Your task to perform on an android device: add a contact Image 0: 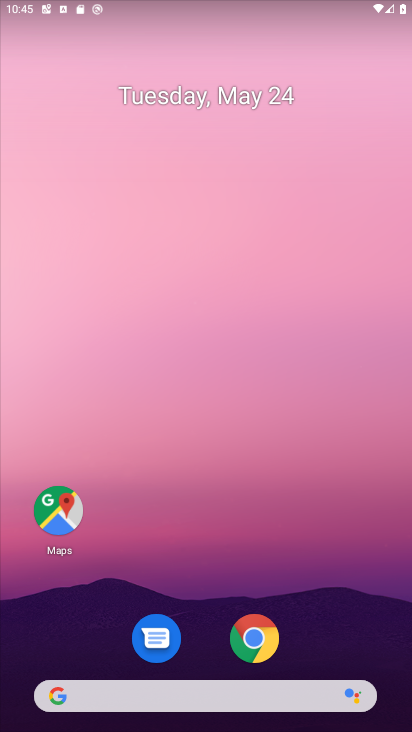
Step 0: drag from (53, 672) to (66, 148)
Your task to perform on an android device: add a contact Image 1: 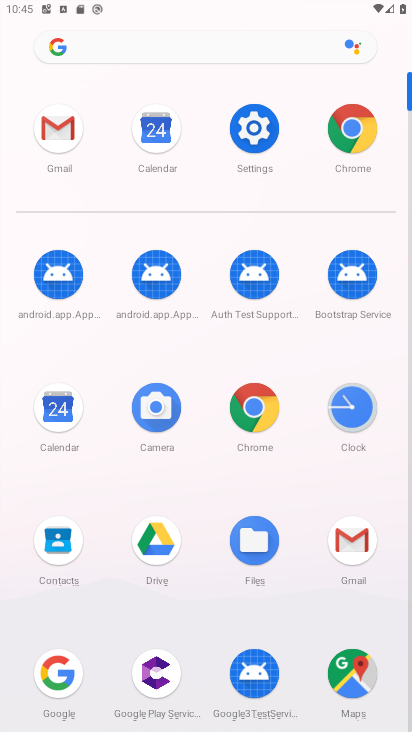
Step 1: drag from (212, 646) to (100, 276)
Your task to perform on an android device: add a contact Image 2: 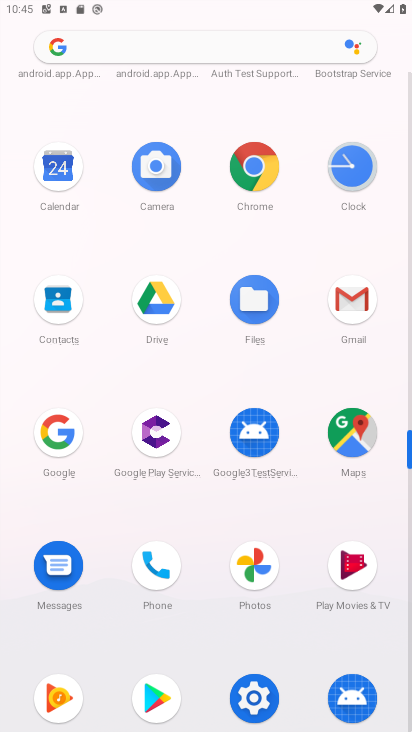
Step 2: click (54, 306)
Your task to perform on an android device: add a contact Image 3: 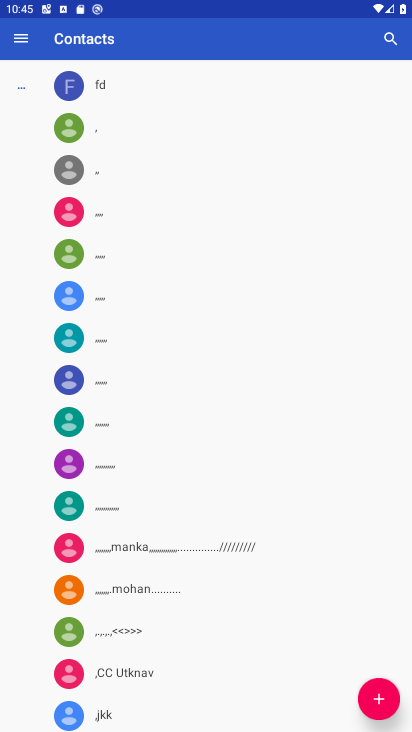
Step 3: click (376, 698)
Your task to perform on an android device: add a contact Image 4: 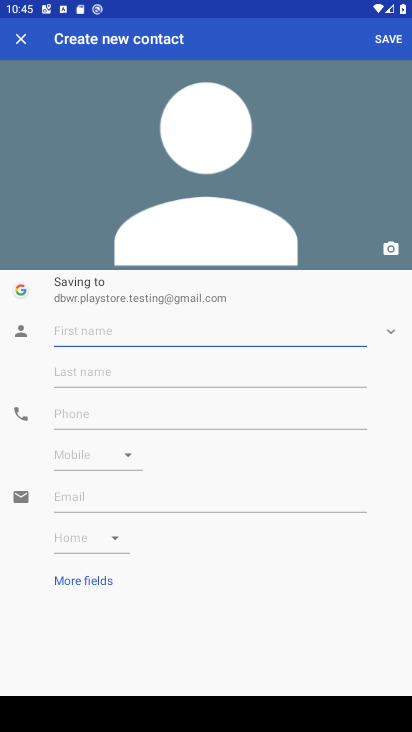
Step 4: click (96, 338)
Your task to perform on an android device: add a contact Image 5: 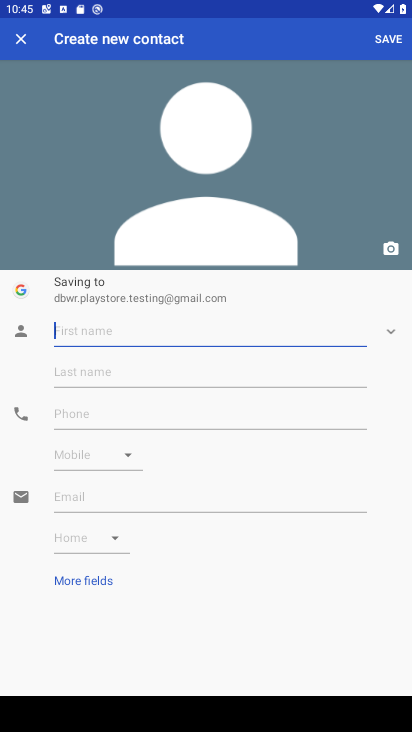
Step 5: type "hgvh"
Your task to perform on an android device: add a contact Image 6: 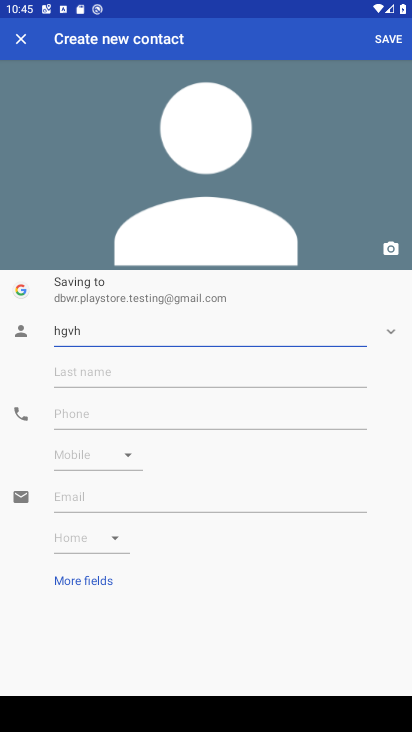
Step 6: click (303, 409)
Your task to perform on an android device: add a contact Image 7: 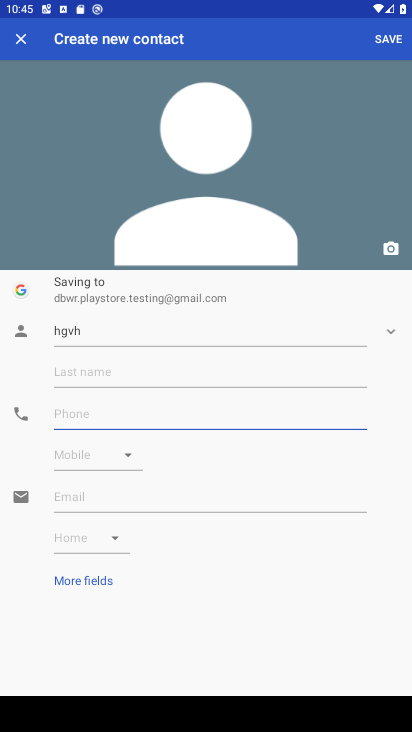
Step 7: type "899"
Your task to perform on an android device: add a contact Image 8: 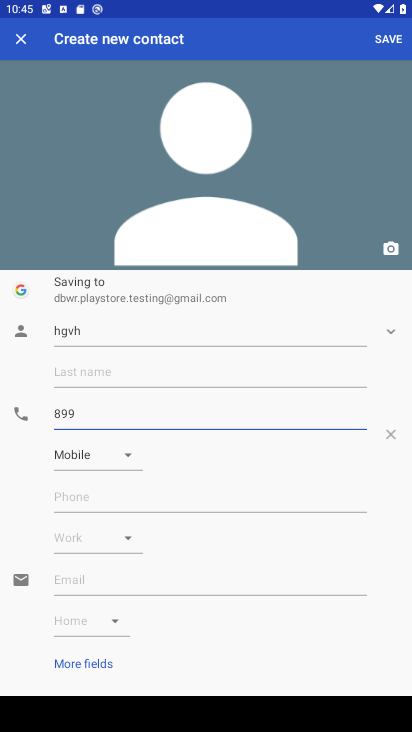
Step 8: click (382, 34)
Your task to perform on an android device: add a contact Image 9: 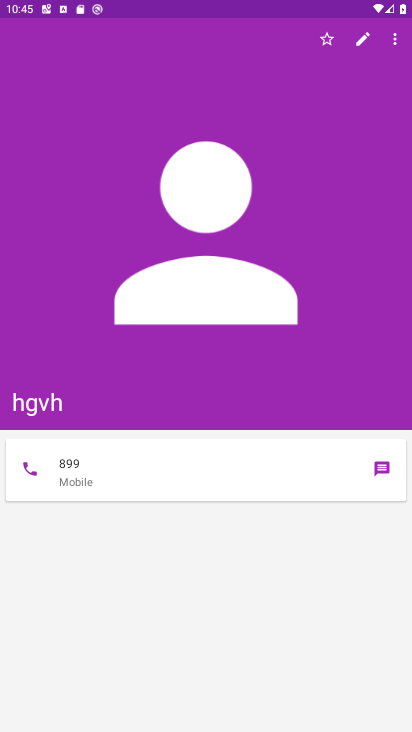
Step 9: task complete